Your task to perform on an android device: add a contact Image 0: 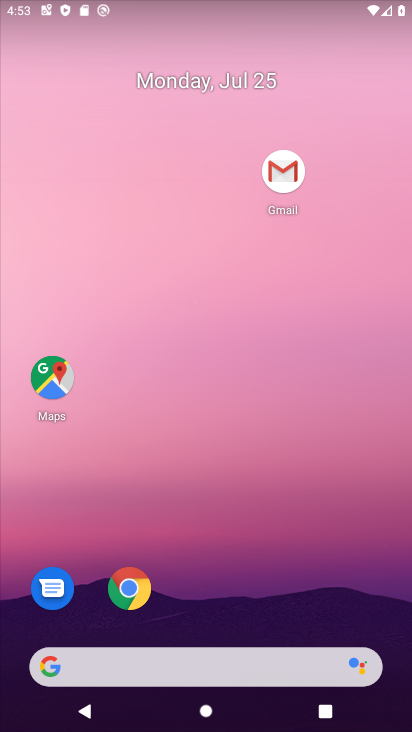
Step 0: drag from (290, 605) to (209, 54)
Your task to perform on an android device: add a contact Image 1: 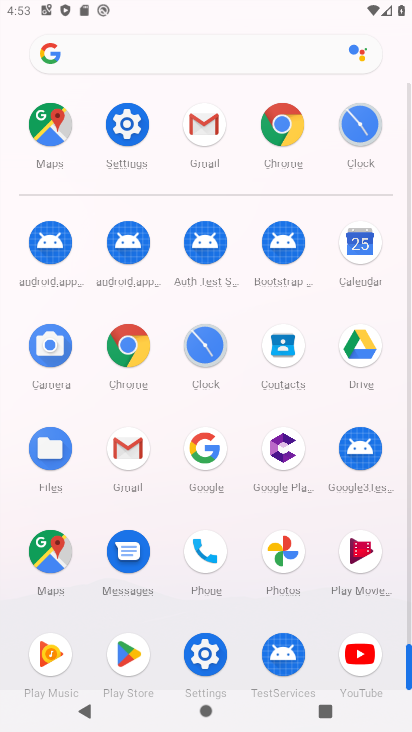
Step 1: click (280, 342)
Your task to perform on an android device: add a contact Image 2: 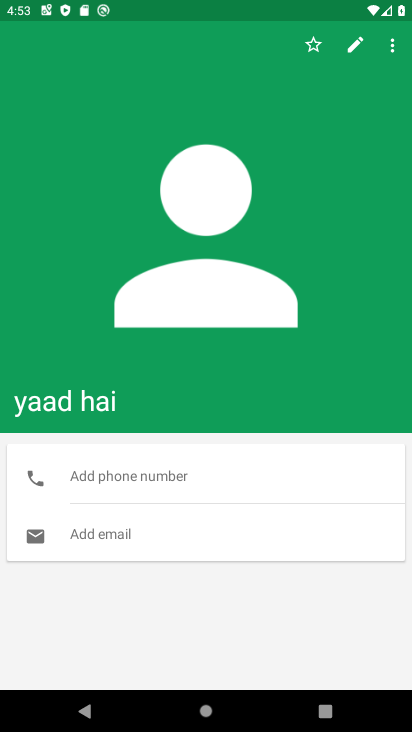
Step 2: task complete